Your task to perform on an android device: What's the weather today? Image 0: 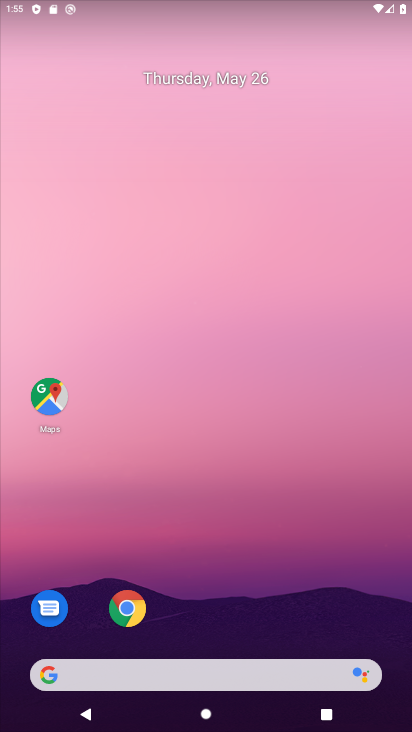
Step 0: drag from (337, 585) to (375, 17)
Your task to perform on an android device: What's the weather today? Image 1: 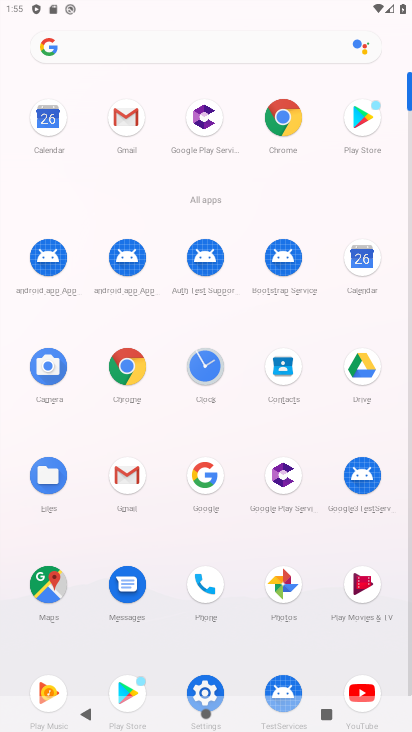
Step 1: click (207, 477)
Your task to perform on an android device: What's the weather today? Image 2: 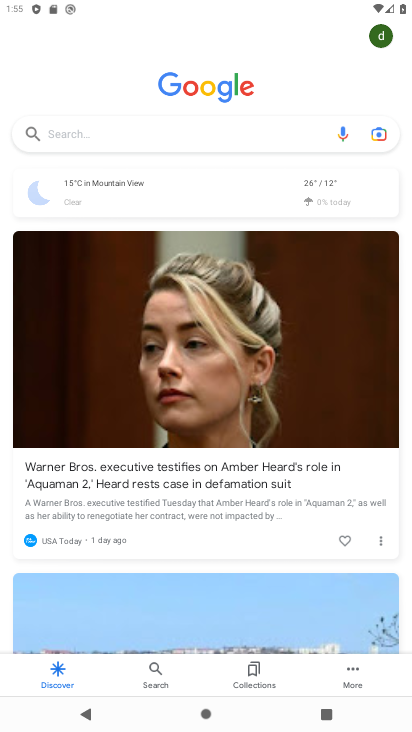
Step 2: click (167, 206)
Your task to perform on an android device: What's the weather today? Image 3: 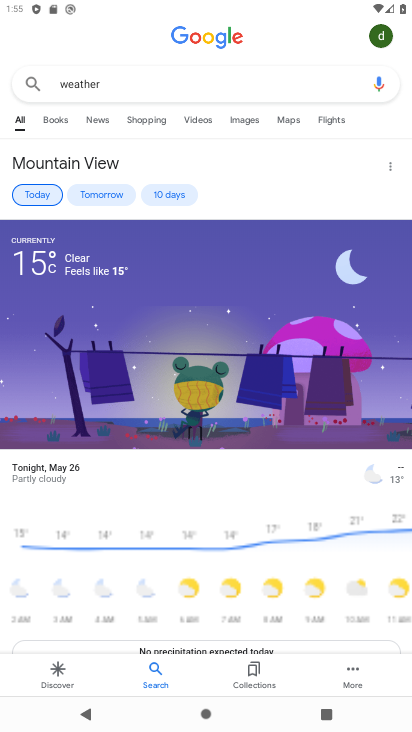
Step 3: task complete